Your task to perform on an android device: Open calendar and show me the third week of next month Image 0: 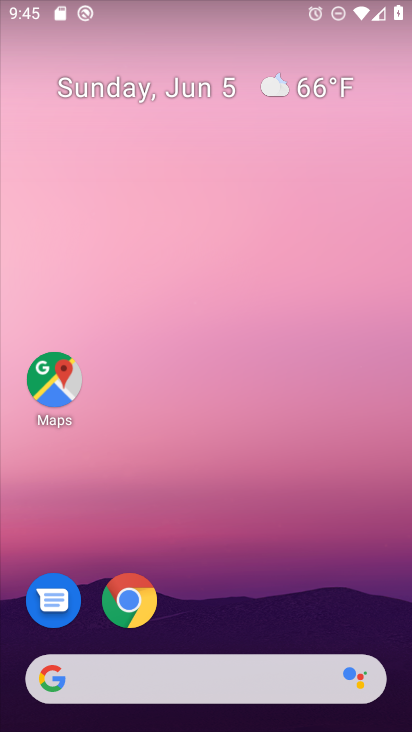
Step 0: drag from (319, 607) to (255, 2)
Your task to perform on an android device: Open calendar and show me the third week of next month Image 1: 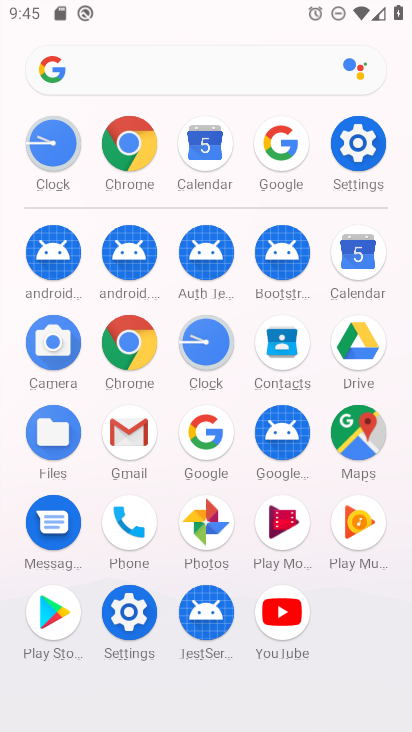
Step 1: click (366, 225)
Your task to perform on an android device: Open calendar and show me the third week of next month Image 2: 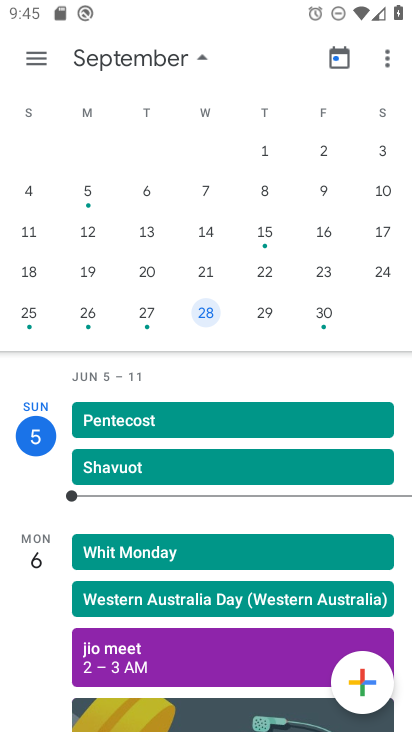
Step 2: drag from (378, 157) to (19, 263)
Your task to perform on an android device: Open calendar and show me the third week of next month Image 3: 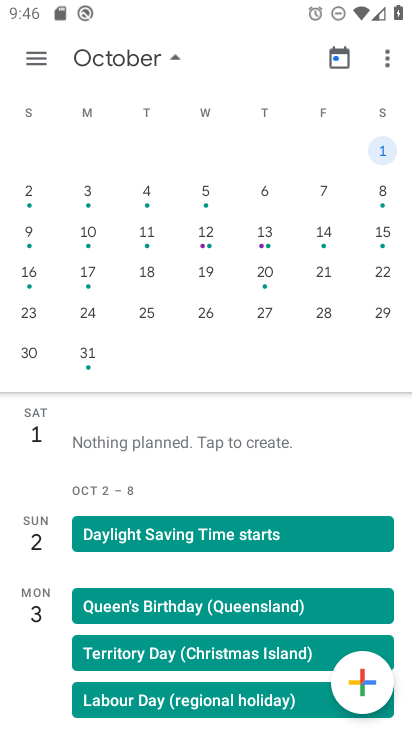
Step 3: click (264, 271)
Your task to perform on an android device: Open calendar and show me the third week of next month Image 4: 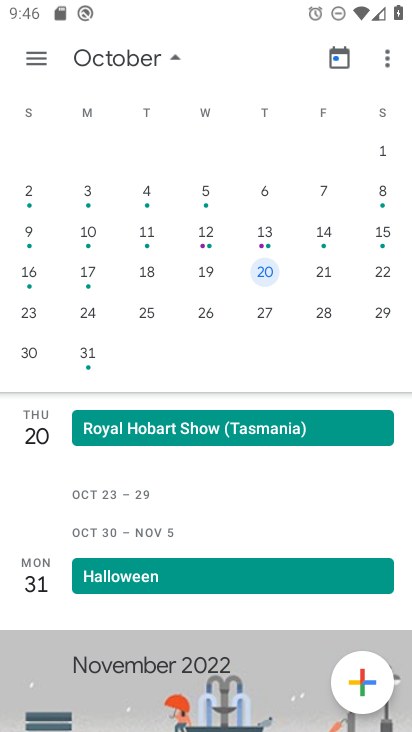
Step 4: task complete